Your task to perform on an android device: uninstall "Nova Launcher" Image 0: 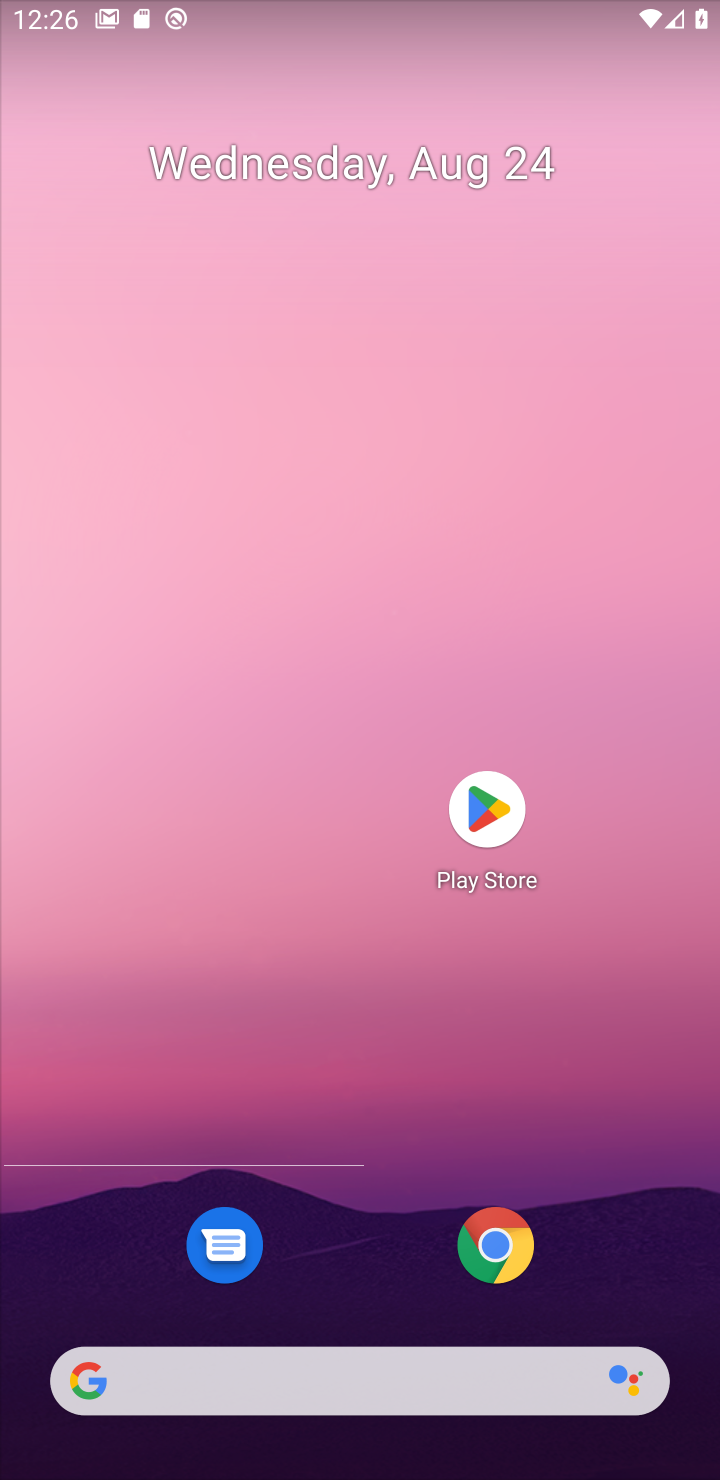
Step 0: press home button
Your task to perform on an android device: uninstall "Nova Launcher" Image 1: 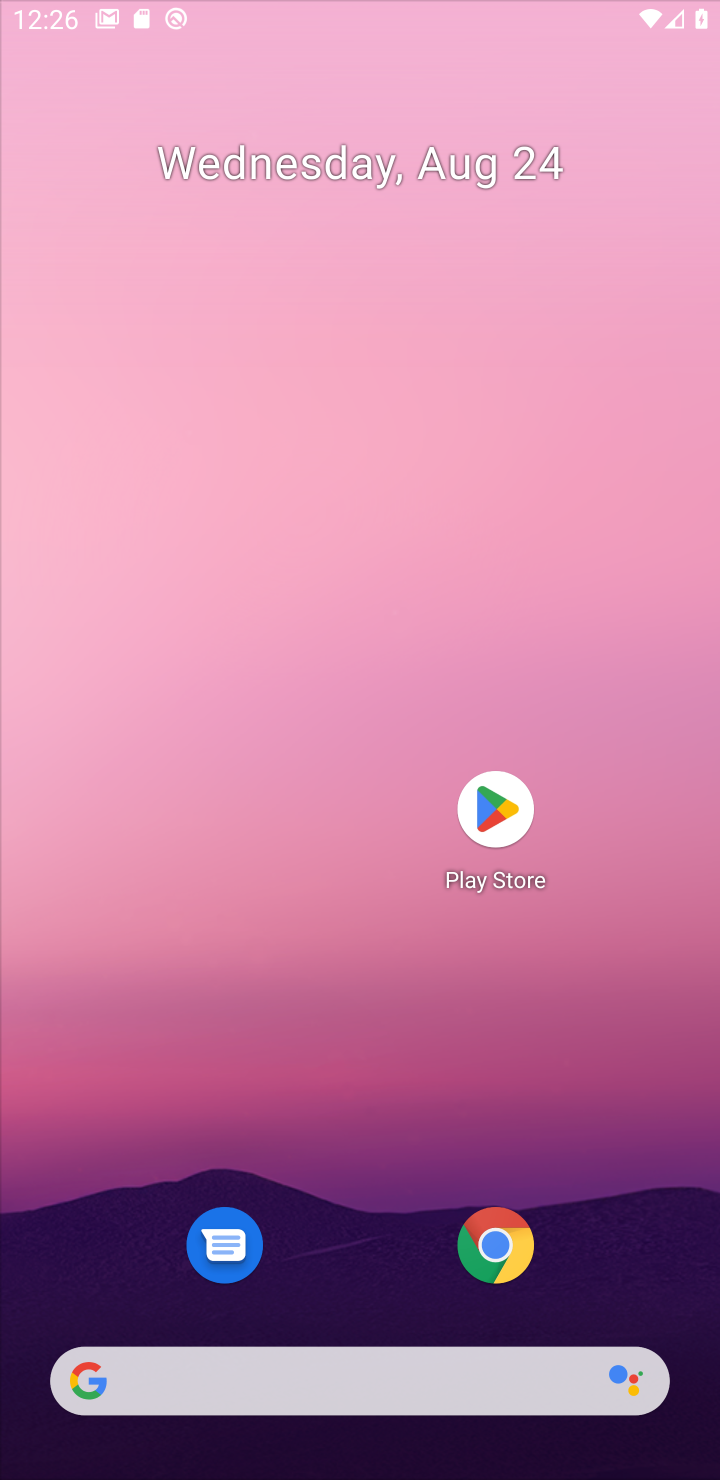
Step 1: press home button
Your task to perform on an android device: uninstall "Nova Launcher" Image 2: 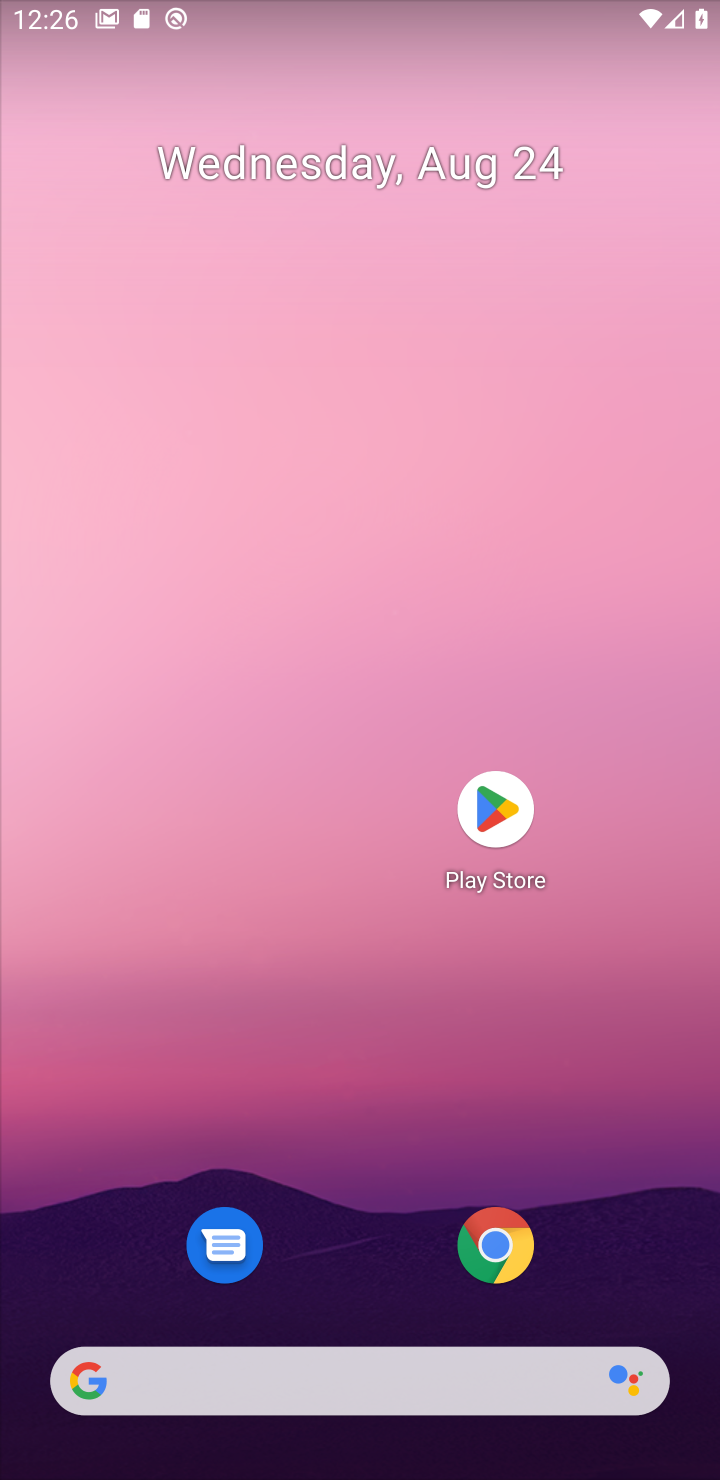
Step 2: click (489, 805)
Your task to perform on an android device: uninstall "Nova Launcher" Image 3: 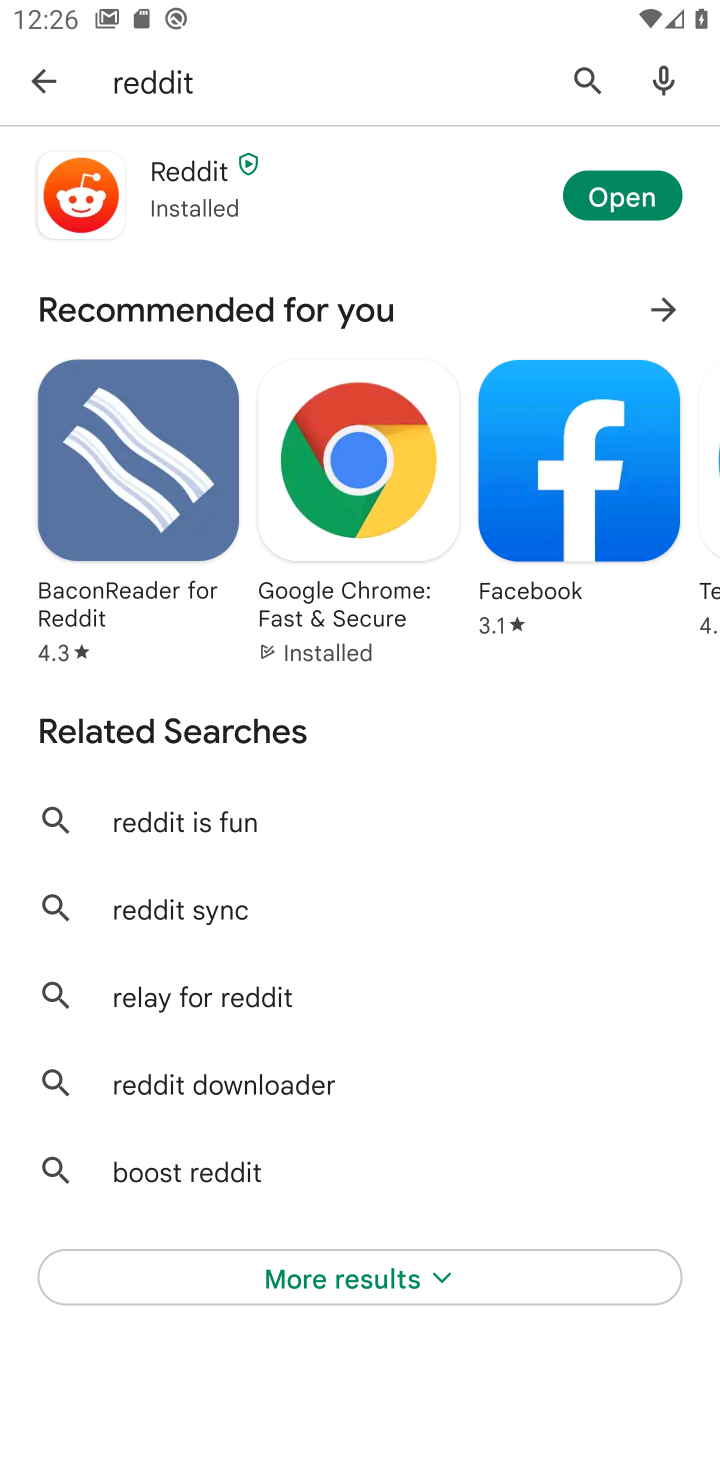
Step 3: click (577, 79)
Your task to perform on an android device: uninstall "Nova Launcher" Image 4: 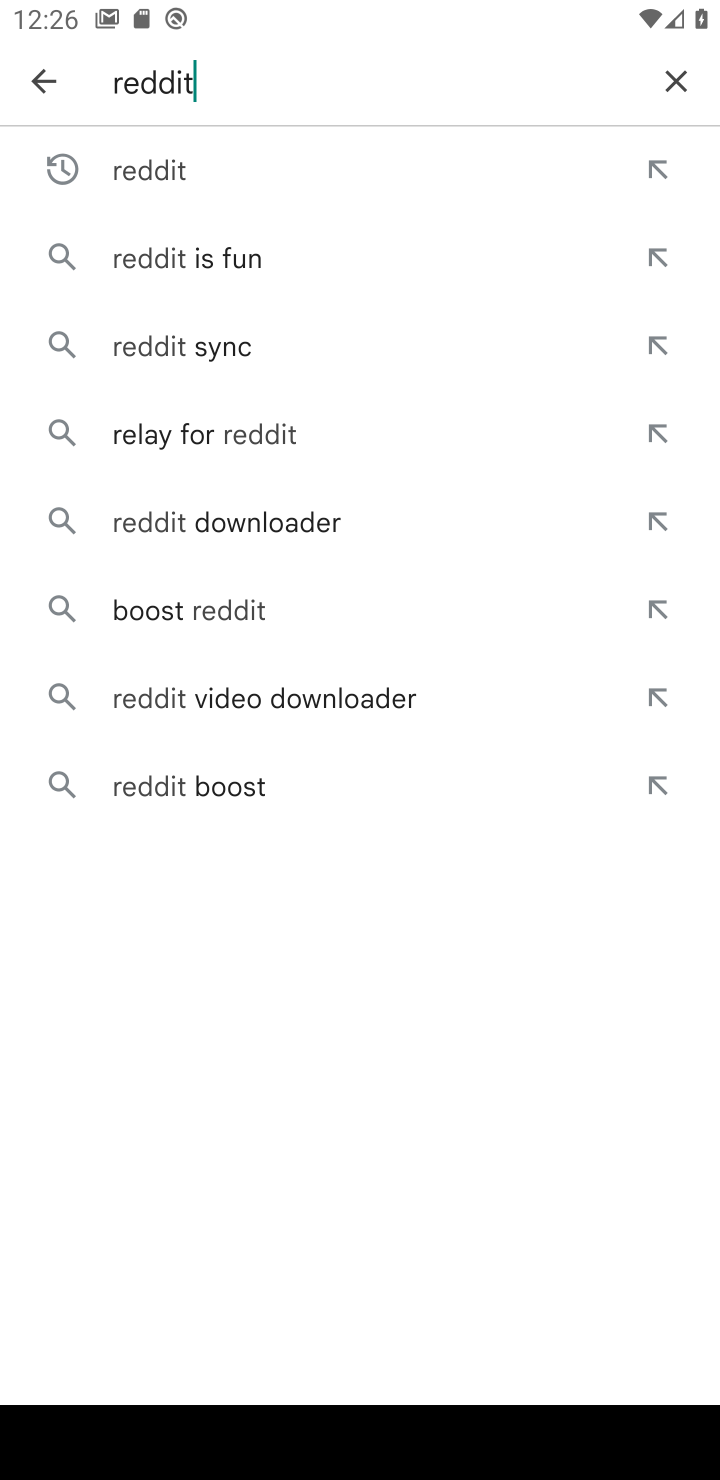
Step 4: click (670, 73)
Your task to perform on an android device: uninstall "Nova Launcher" Image 5: 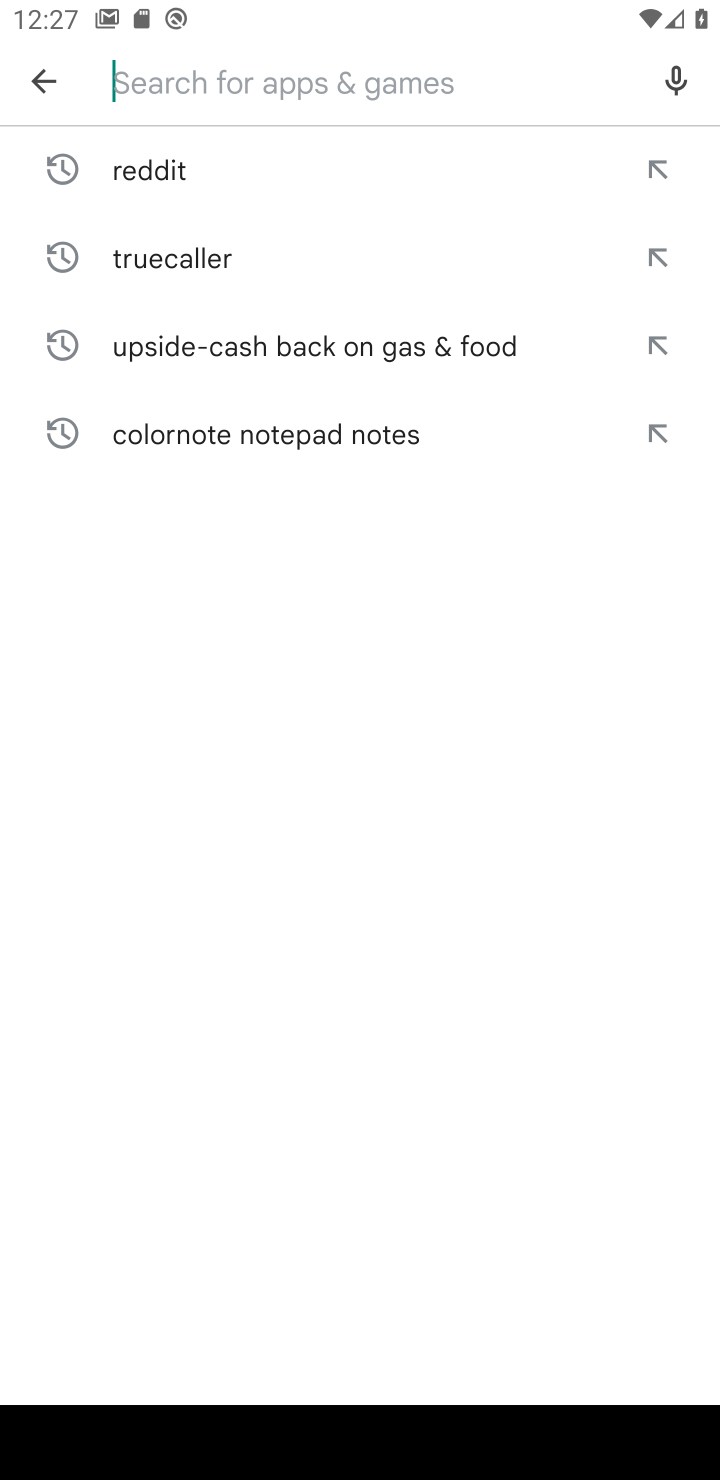
Step 5: type "Nova Launcher"
Your task to perform on an android device: uninstall "Nova Launcher" Image 6: 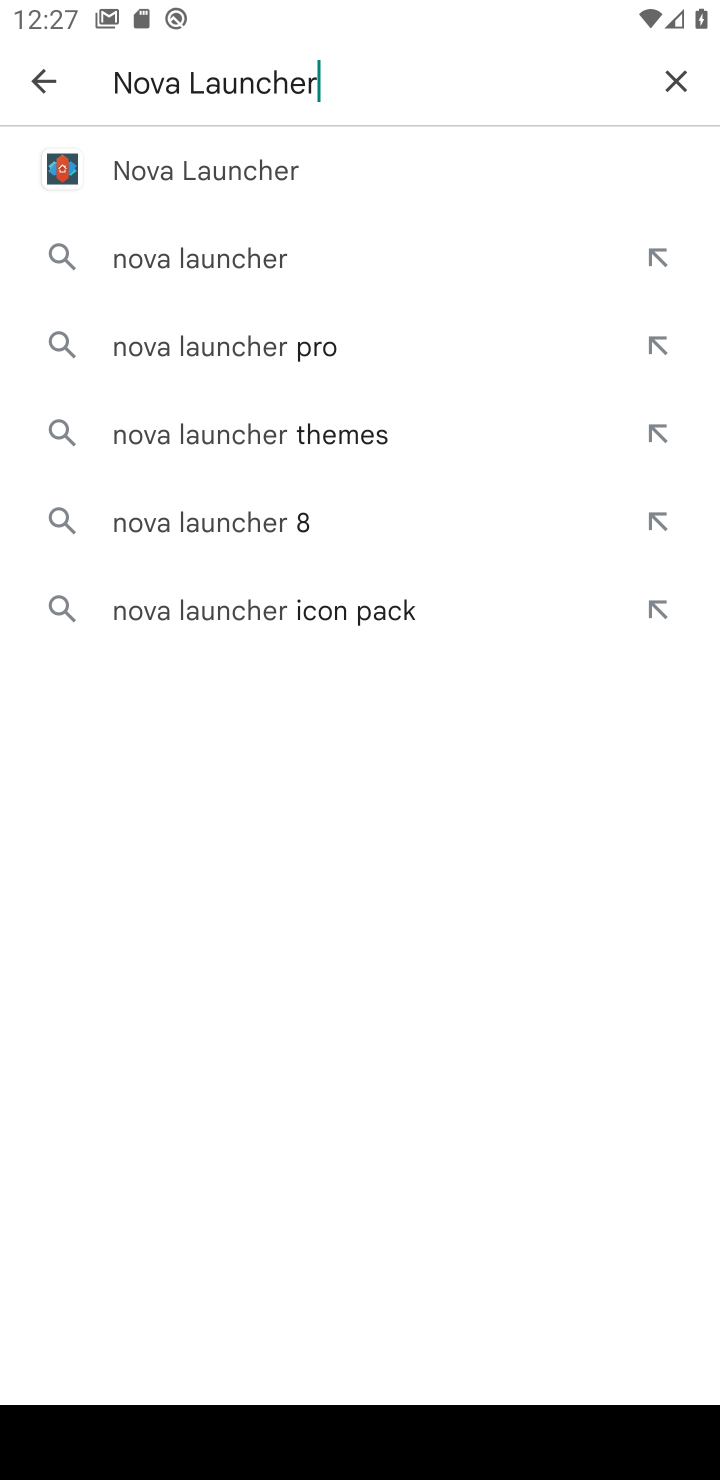
Step 6: click (245, 186)
Your task to perform on an android device: uninstall "Nova Launcher" Image 7: 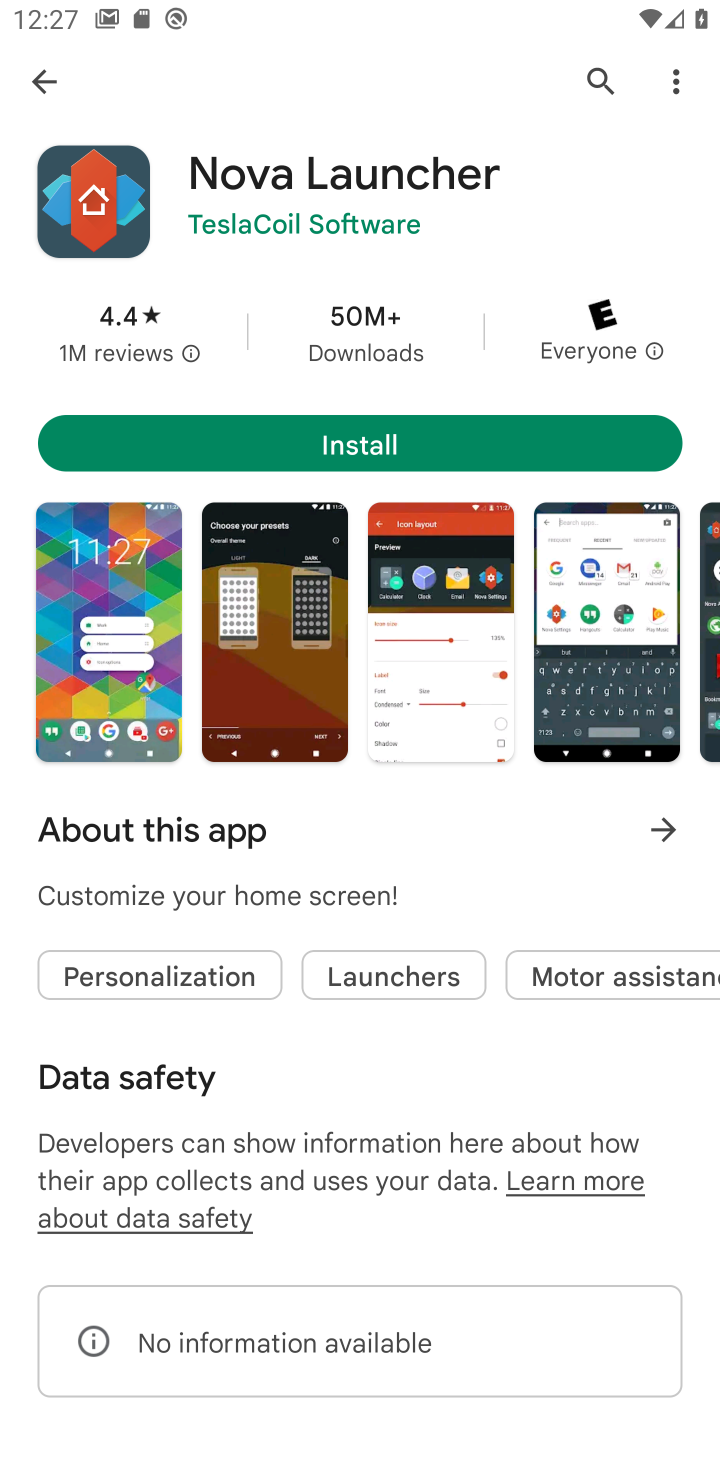
Step 7: task complete